Your task to perform on an android device: turn smart compose on in the gmail app Image 0: 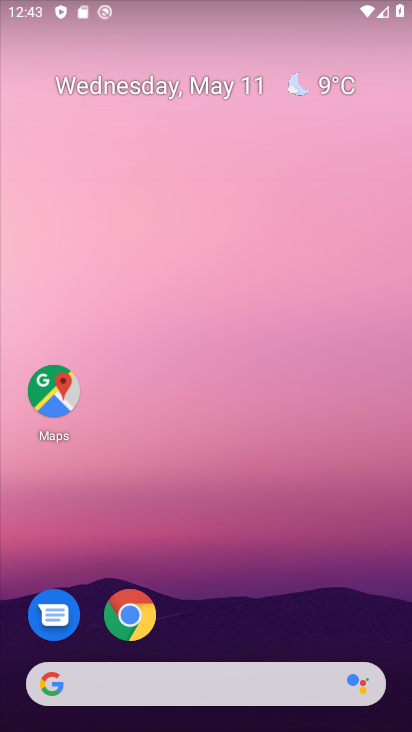
Step 0: drag from (301, 612) to (278, 75)
Your task to perform on an android device: turn smart compose on in the gmail app Image 1: 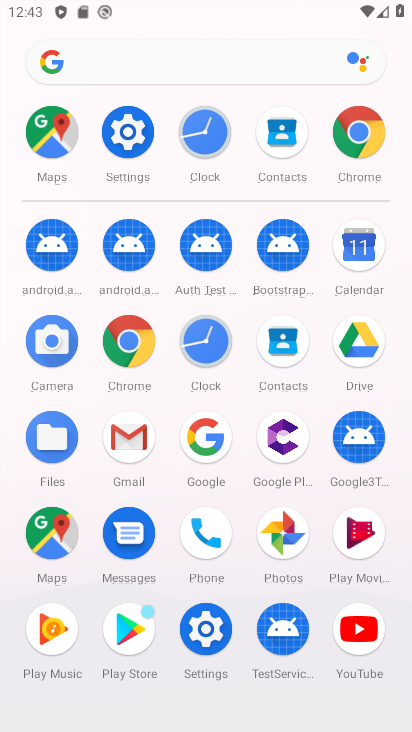
Step 1: click (149, 454)
Your task to perform on an android device: turn smart compose on in the gmail app Image 2: 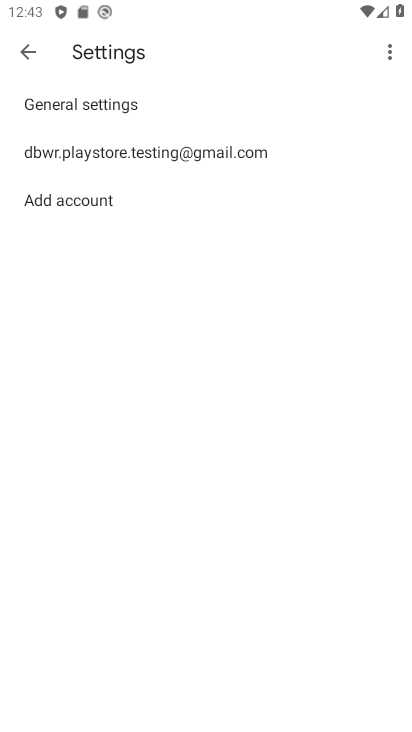
Step 2: click (162, 156)
Your task to perform on an android device: turn smart compose on in the gmail app Image 3: 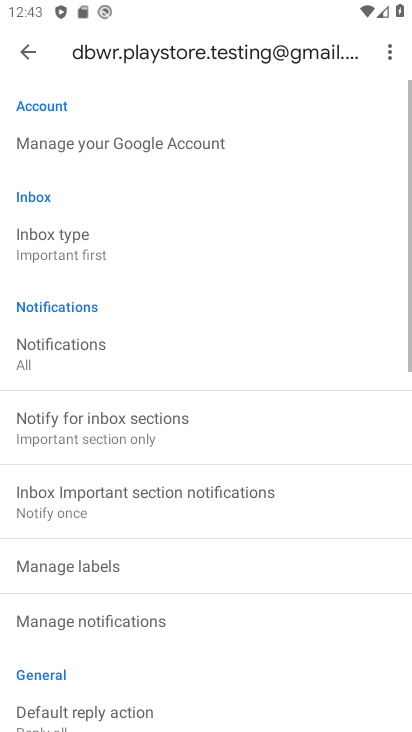
Step 3: drag from (227, 537) to (245, 211)
Your task to perform on an android device: turn smart compose on in the gmail app Image 4: 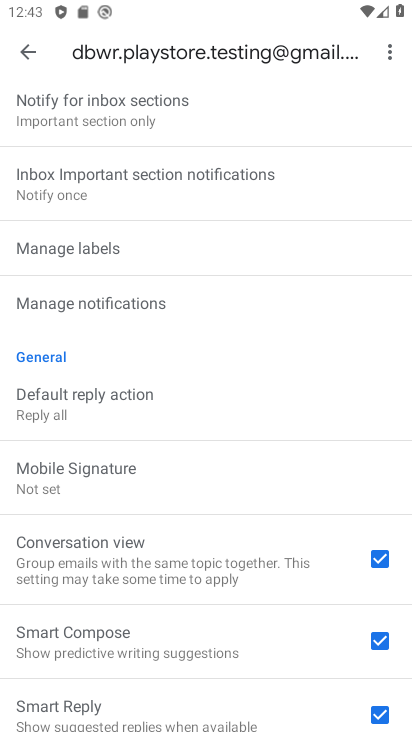
Step 4: drag from (187, 626) to (224, 347)
Your task to perform on an android device: turn smart compose on in the gmail app Image 5: 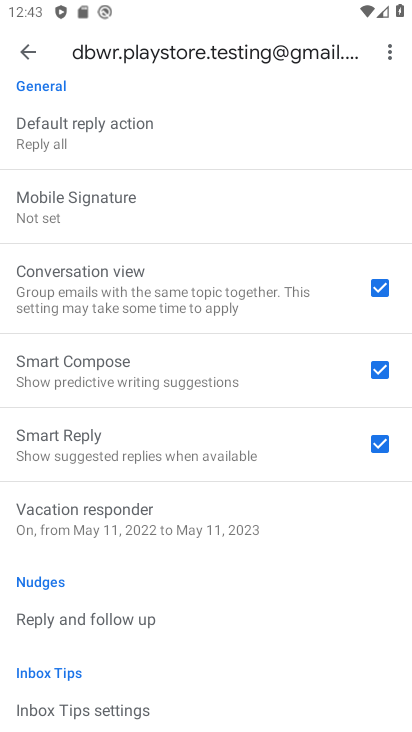
Step 5: click (371, 361)
Your task to perform on an android device: turn smart compose on in the gmail app Image 6: 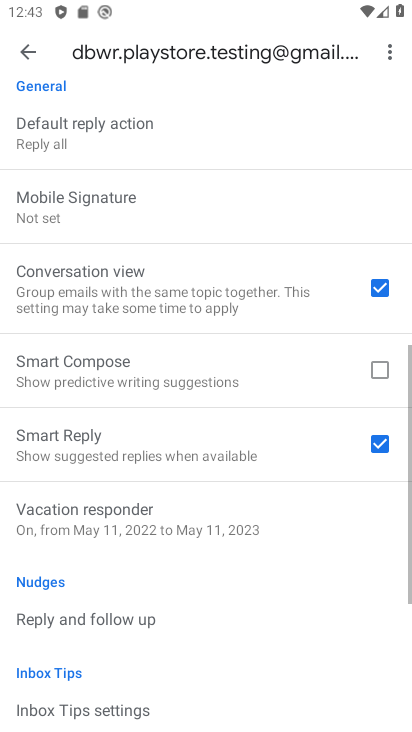
Step 6: task complete